Your task to perform on an android device: set an alarm Image 0: 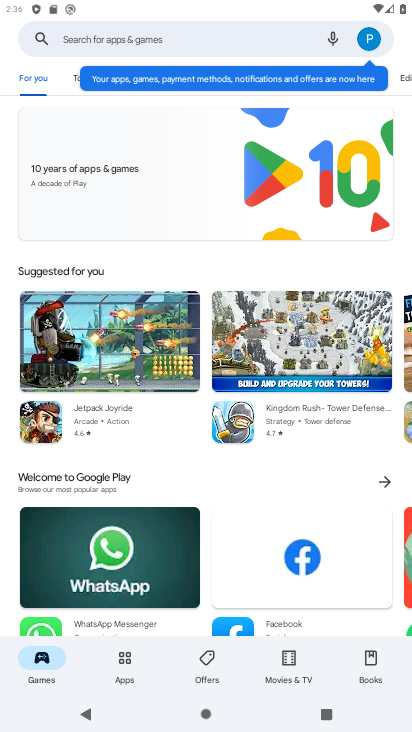
Step 0: press home button
Your task to perform on an android device: set an alarm Image 1: 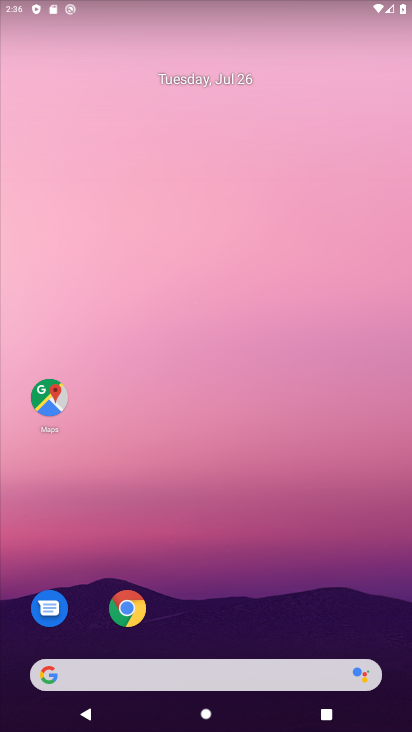
Step 1: drag from (326, 619) to (245, 153)
Your task to perform on an android device: set an alarm Image 2: 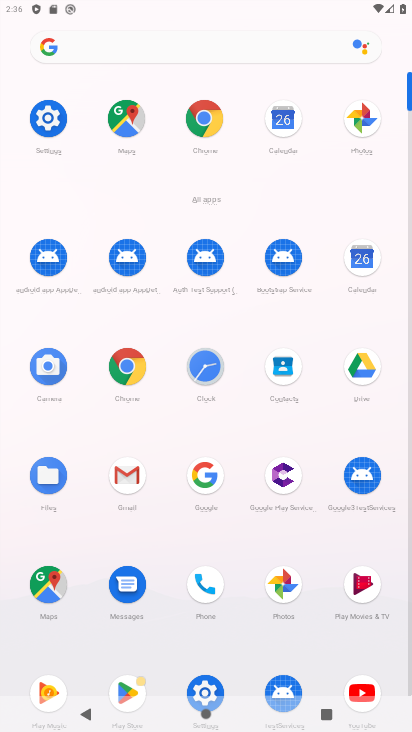
Step 2: click (205, 360)
Your task to perform on an android device: set an alarm Image 3: 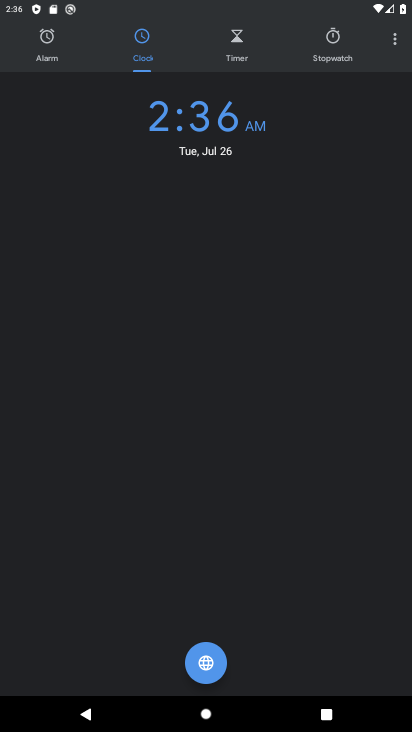
Step 3: click (57, 34)
Your task to perform on an android device: set an alarm Image 4: 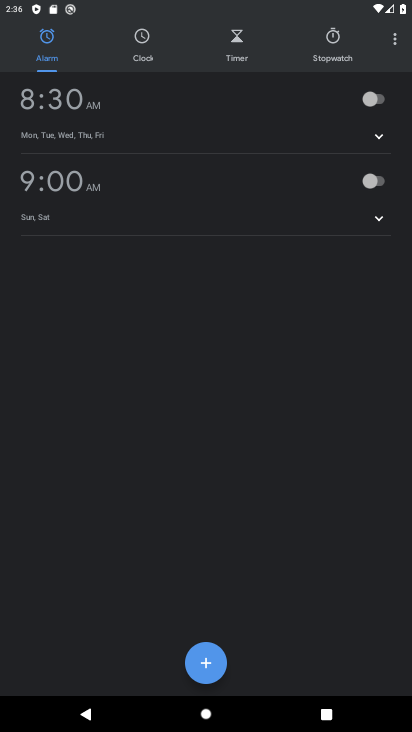
Step 4: click (209, 652)
Your task to perform on an android device: set an alarm Image 5: 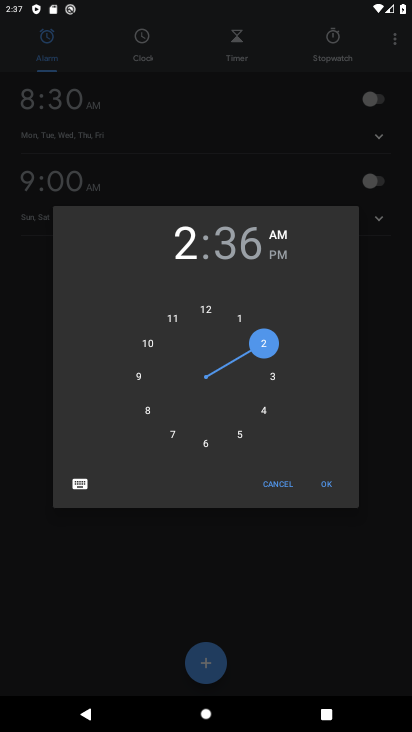
Step 5: click (330, 487)
Your task to perform on an android device: set an alarm Image 6: 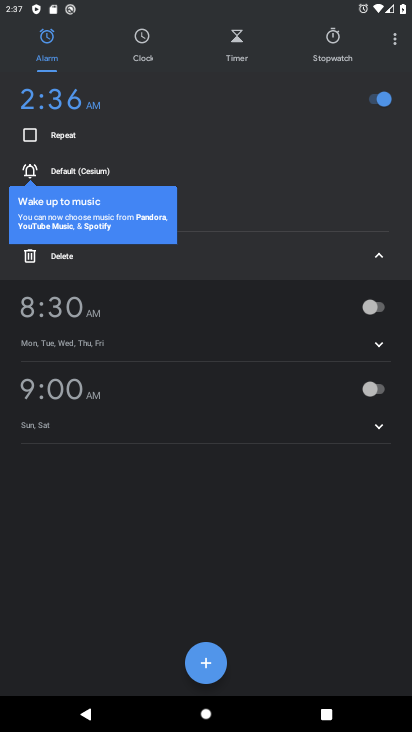
Step 6: click (377, 258)
Your task to perform on an android device: set an alarm Image 7: 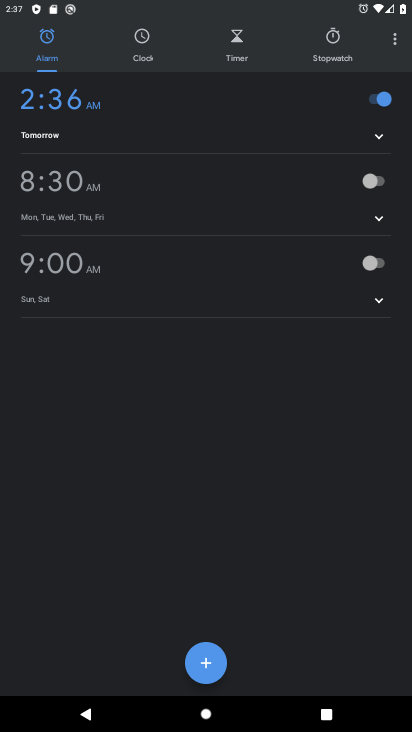
Step 7: task complete